Your task to perform on an android device: turn on data saver in the chrome app Image 0: 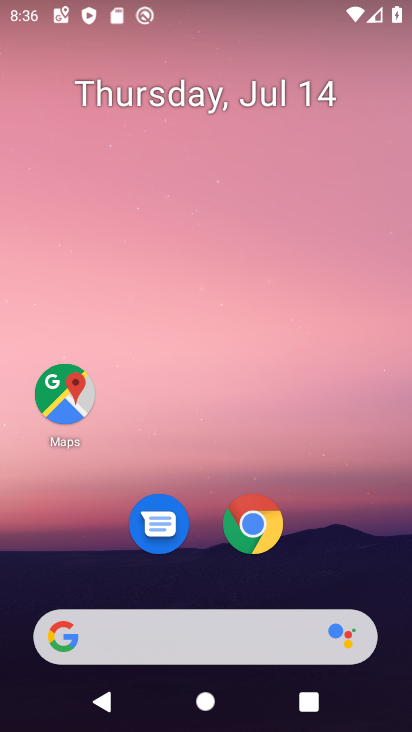
Step 0: click (271, 526)
Your task to perform on an android device: turn on data saver in the chrome app Image 1: 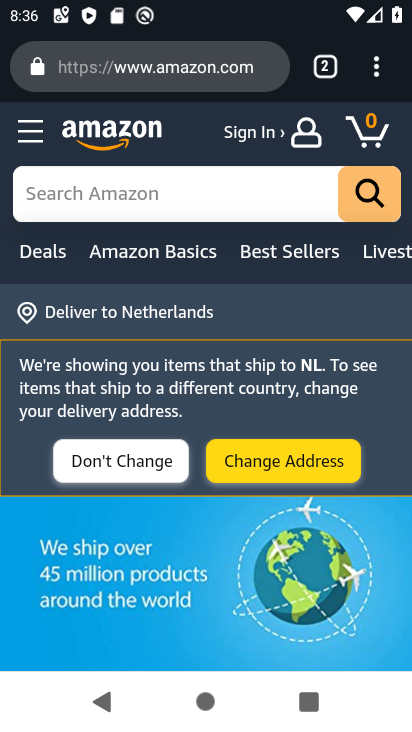
Step 1: click (382, 66)
Your task to perform on an android device: turn on data saver in the chrome app Image 2: 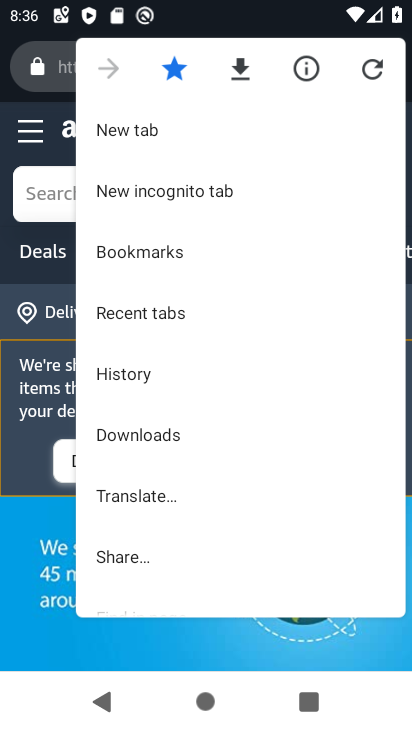
Step 2: drag from (233, 463) to (266, 157)
Your task to perform on an android device: turn on data saver in the chrome app Image 3: 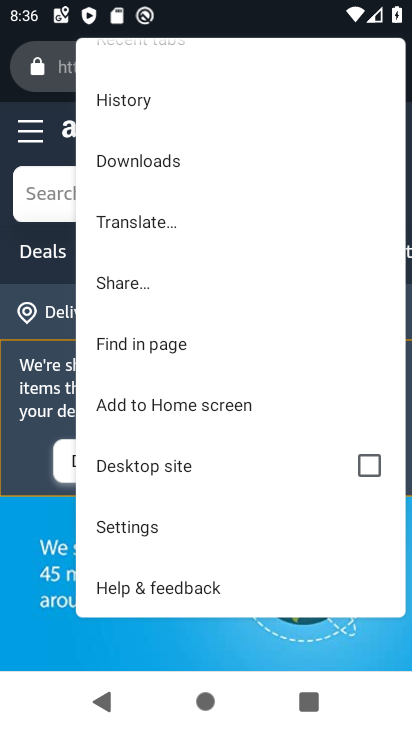
Step 3: click (143, 521)
Your task to perform on an android device: turn on data saver in the chrome app Image 4: 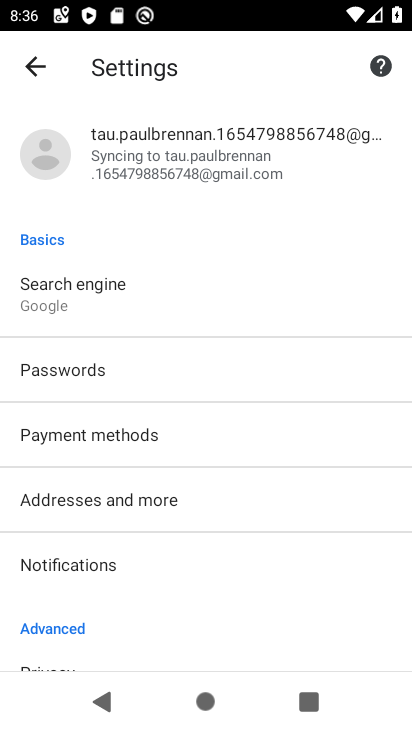
Step 4: drag from (201, 586) to (222, 199)
Your task to perform on an android device: turn on data saver in the chrome app Image 5: 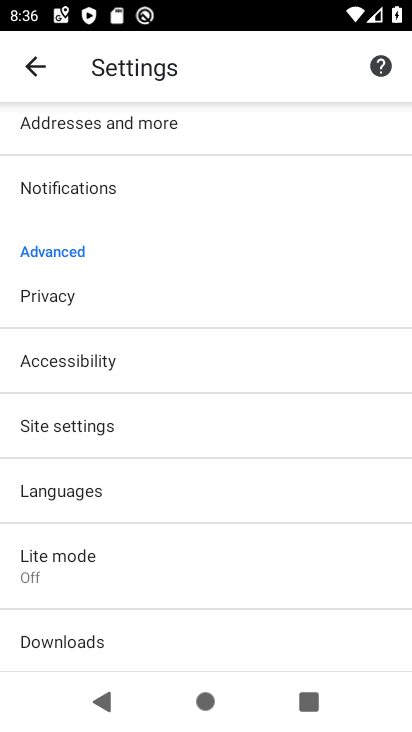
Step 5: click (138, 569)
Your task to perform on an android device: turn on data saver in the chrome app Image 6: 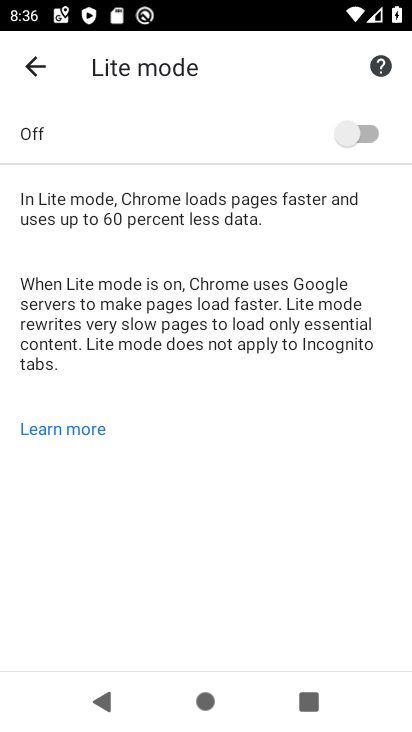
Step 6: click (361, 130)
Your task to perform on an android device: turn on data saver in the chrome app Image 7: 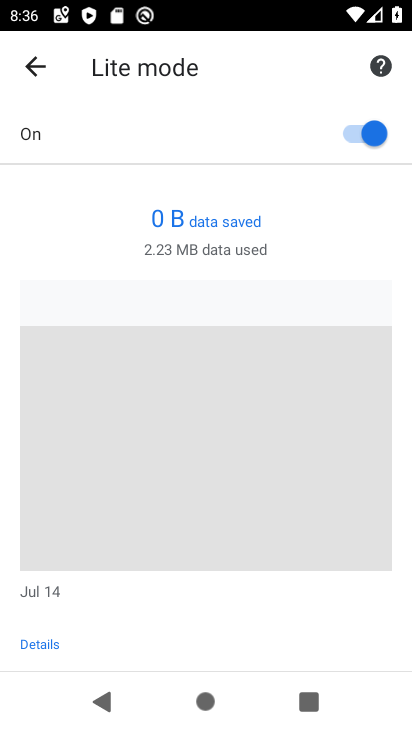
Step 7: task complete